Your task to perform on an android device: Is it going to rain tomorrow? Image 0: 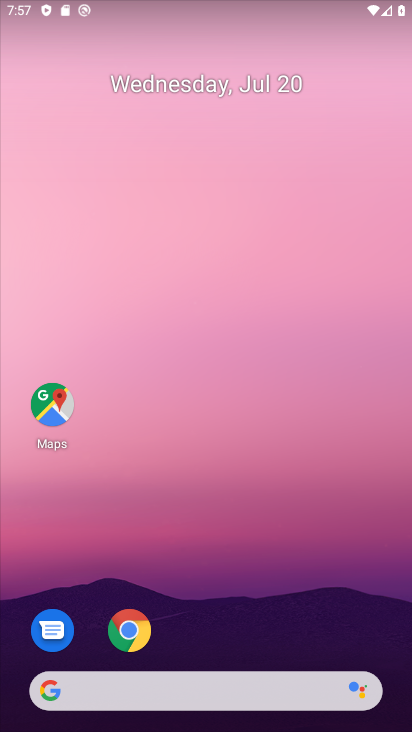
Step 0: drag from (395, 650) to (377, 57)
Your task to perform on an android device: Is it going to rain tomorrow? Image 1: 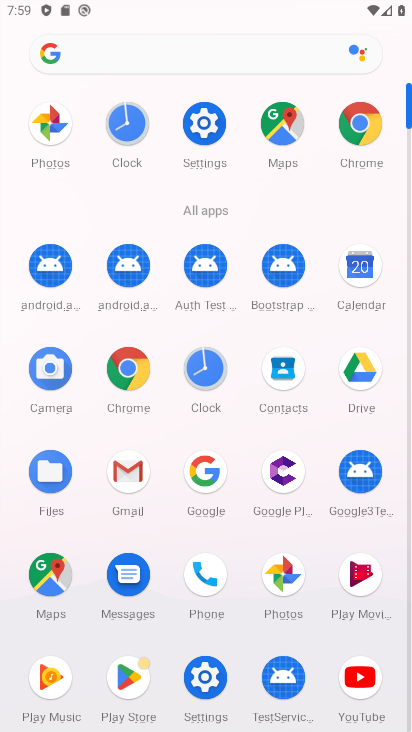
Step 1: click (203, 476)
Your task to perform on an android device: Is it going to rain tomorrow? Image 2: 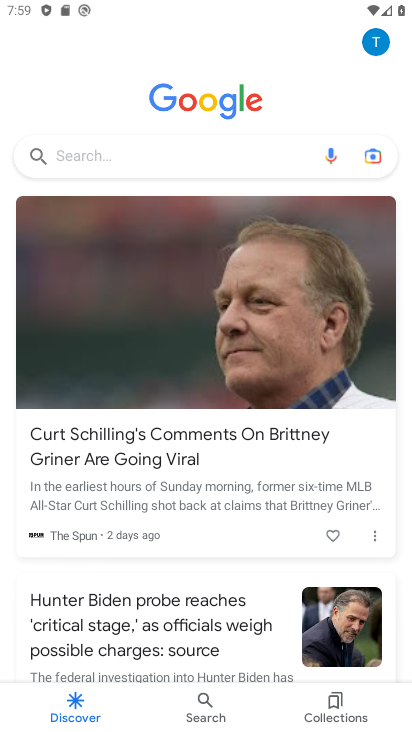
Step 2: task complete